Your task to perform on an android device: Open sound settings Image 0: 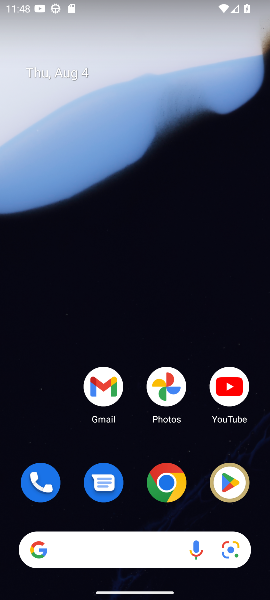
Step 0: drag from (134, 411) to (128, 143)
Your task to perform on an android device: Open sound settings Image 1: 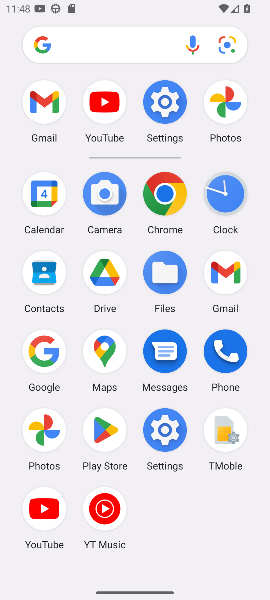
Step 1: click (157, 96)
Your task to perform on an android device: Open sound settings Image 2: 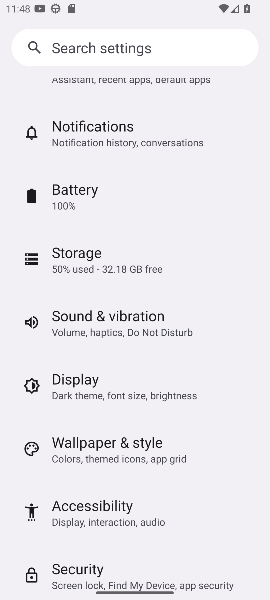
Step 2: click (115, 314)
Your task to perform on an android device: Open sound settings Image 3: 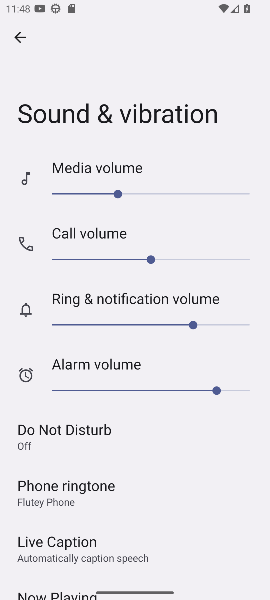
Step 3: task complete